Your task to perform on an android device: Go to calendar. Show me events next week Image 0: 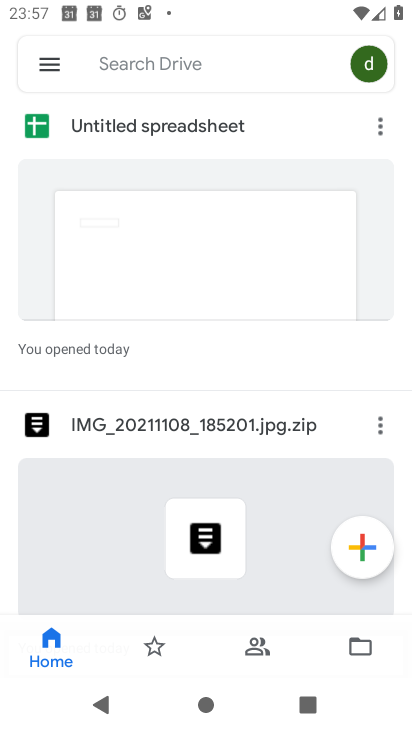
Step 0: press home button
Your task to perform on an android device: Go to calendar. Show me events next week Image 1: 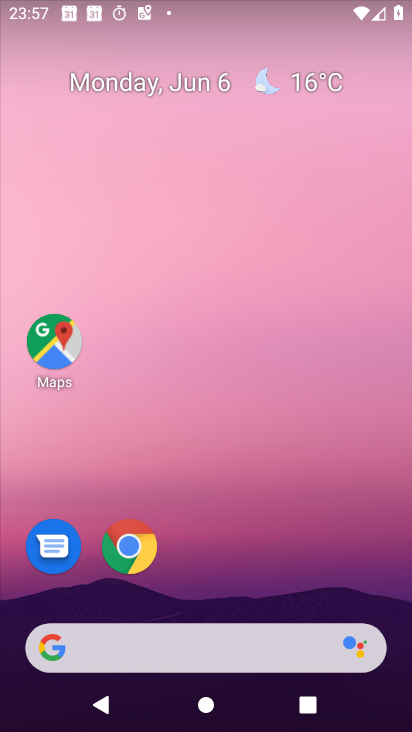
Step 1: drag from (250, 567) to (209, 37)
Your task to perform on an android device: Go to calendar. Show me events next week Image 2: 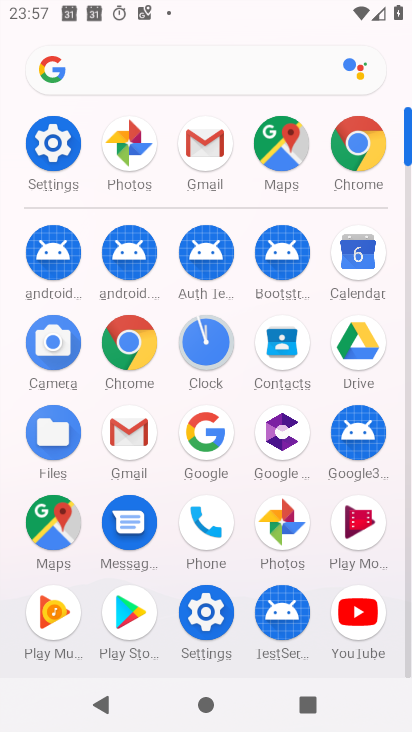
Step 2: click (341, 252)
Your task to perform on an android device: Go to calendar. Show me events next week Image 3: 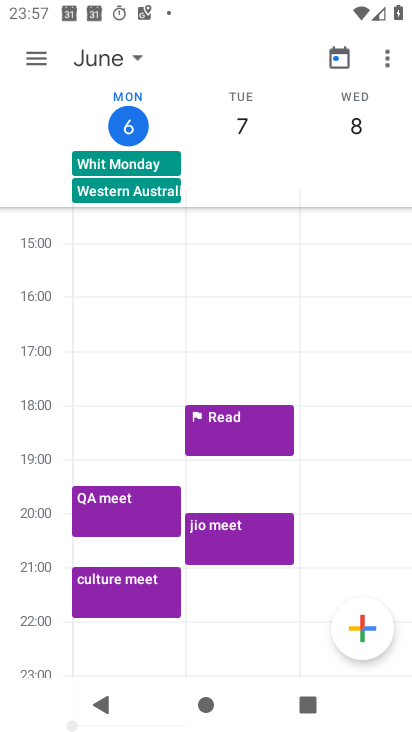
Step 3: click (31, 58)
Your task to perform on an android device: Go to calendar. Show me events next week Image 4: 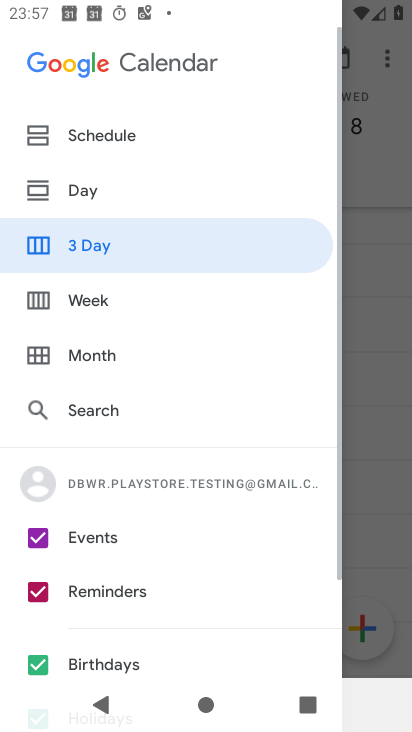
Step 4: click (93, 596)
Your task to perform on an android device: Go to calendar. Show me events next week Image 5: 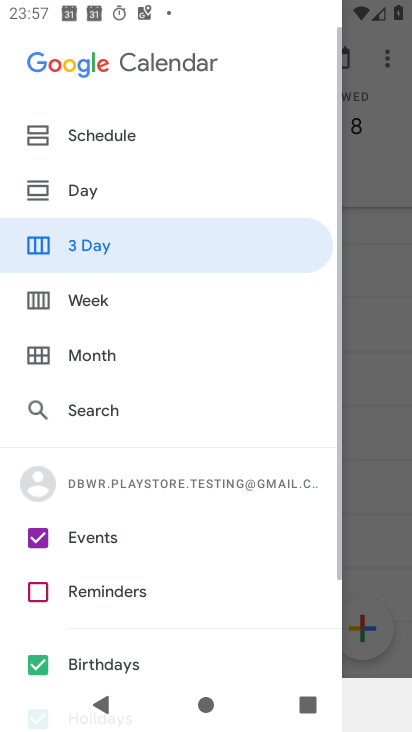
Step 5: drag from (91, 628) to (166, 258)
Your task to perform on an android device: Go to calendar. Show me events next week Image 6: 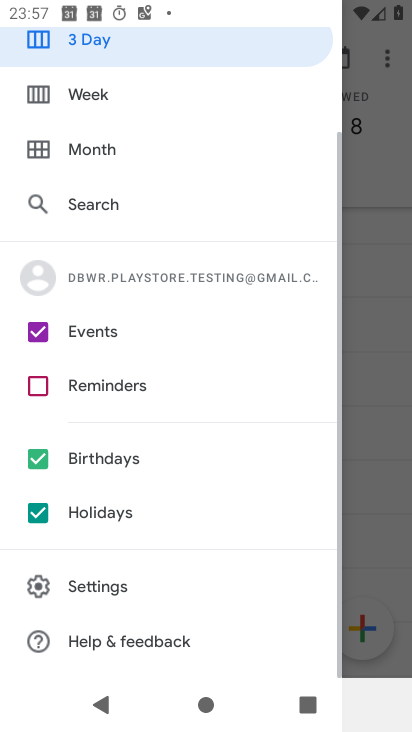
Step 6: click (63, 456)
Your task to perform on an android device: Go to calendar. Show me events next week Image 7: 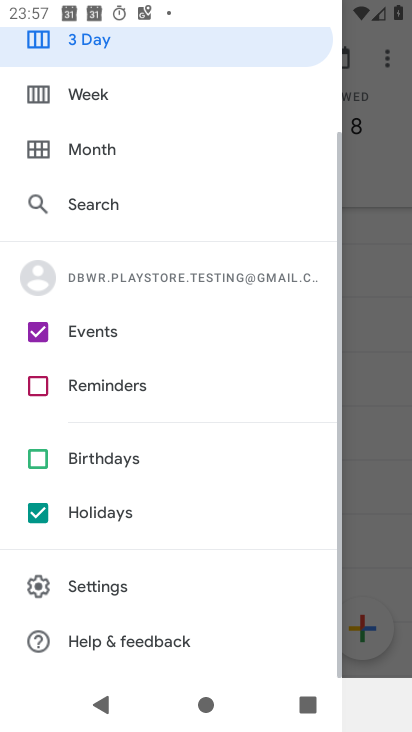
Step 7: click (60, 514)
Your task to perform on an android device: Go to calendar. Show me events next week Image 8: 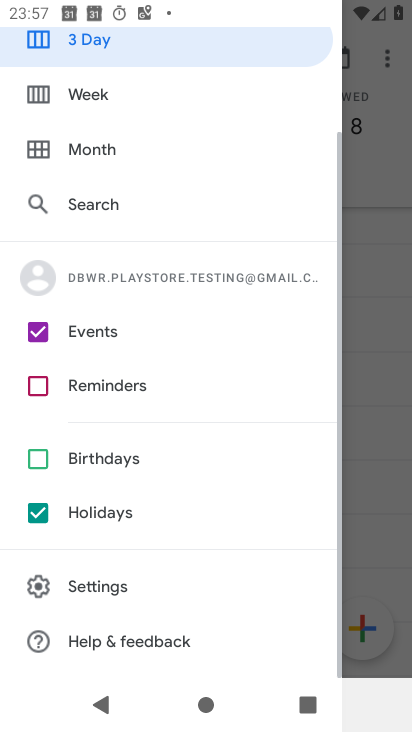
Step 8: click (59, 510)
Your task to perform on an android device: Go to calendar. Show me events next week Image 9: 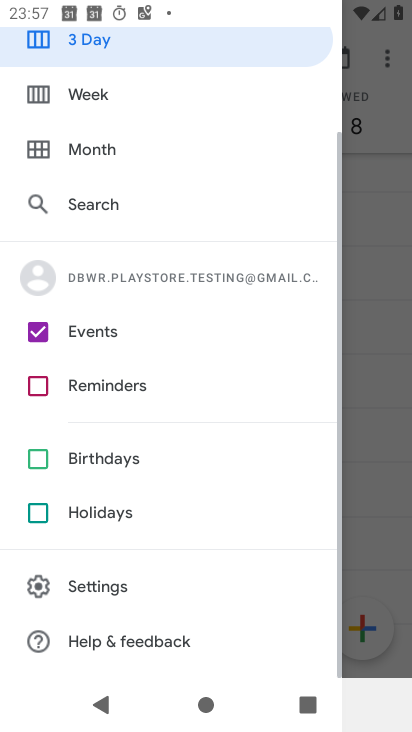
Step 9: click (97, 97)
Your task to perform on an android device: Go to calendar. Show me events next week Image 10: 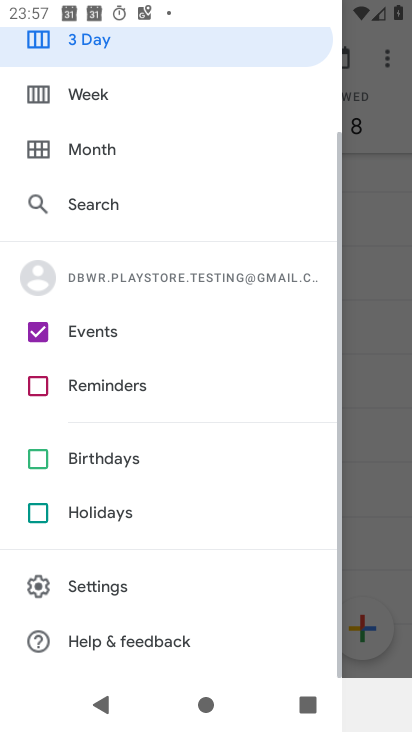
Step 10: click (82, 97)
Your task to perform on an android device: Go to calendar. Show me events next week Image 11: 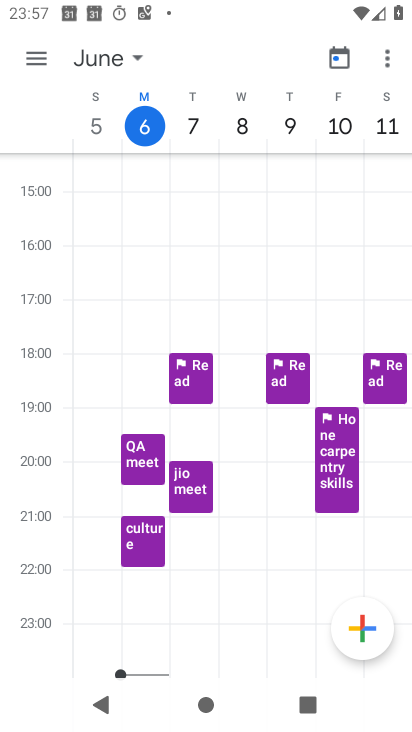
Step 11: task complete